Your task to perform on an android device: change the clock display to analog Image 0: 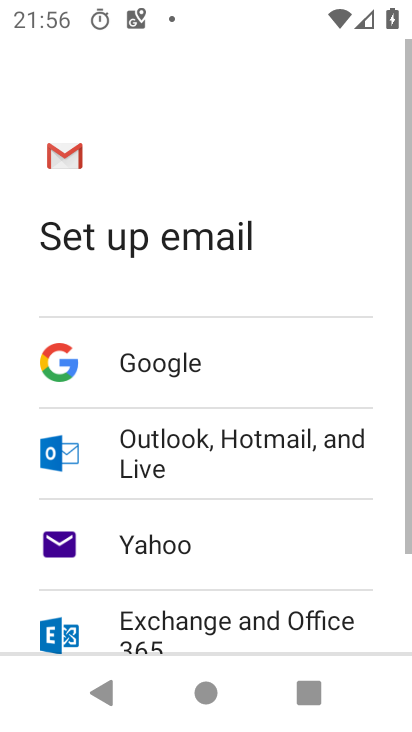
Step 0: press home button
Your task to perform on an android device: change the clock display to analog Image 1: 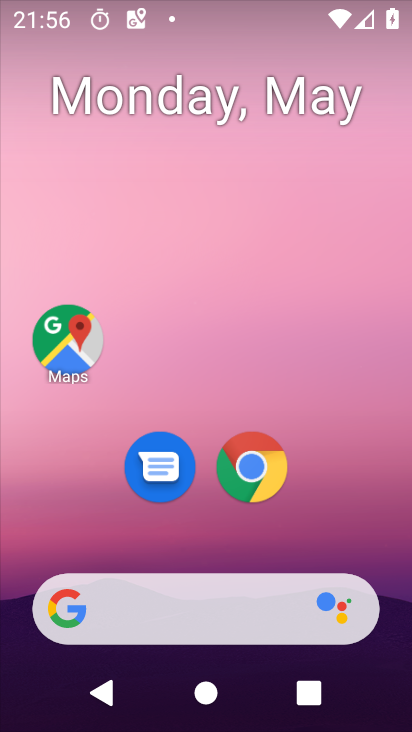
Step 1: drag from (221, 647) to (208, 101)
Your task to perform on an android device: change the clock display to analog Image 2: 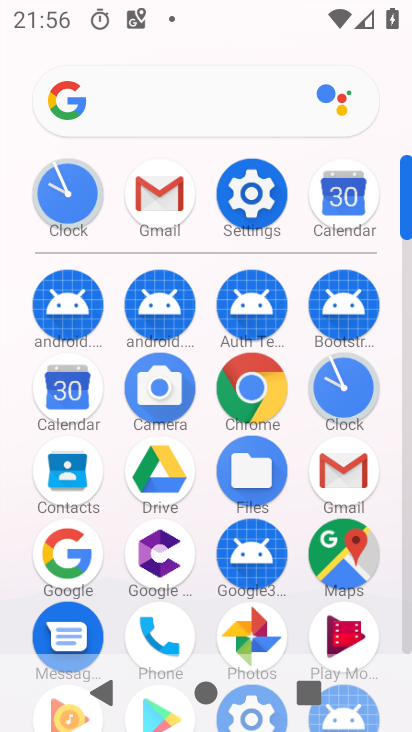
Step 2: click (63, 199)
Your task to perform on an android device: change the clock display to analog Image 3: 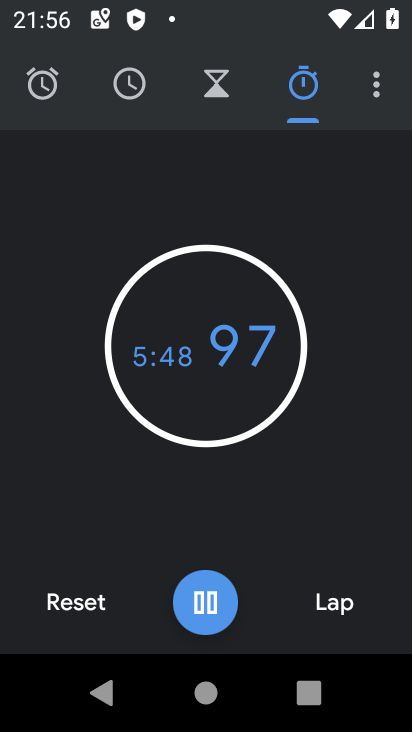
Step 3: click (364, 93)
Your task to perform on an android device: change the clock display to analog Image 4: 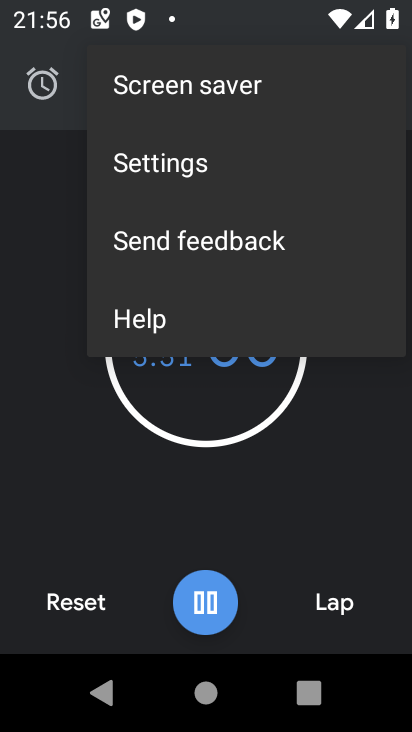
Step 4: click (203, 161)
Your task to perform on an android device: change the clock display to analog Image 5: 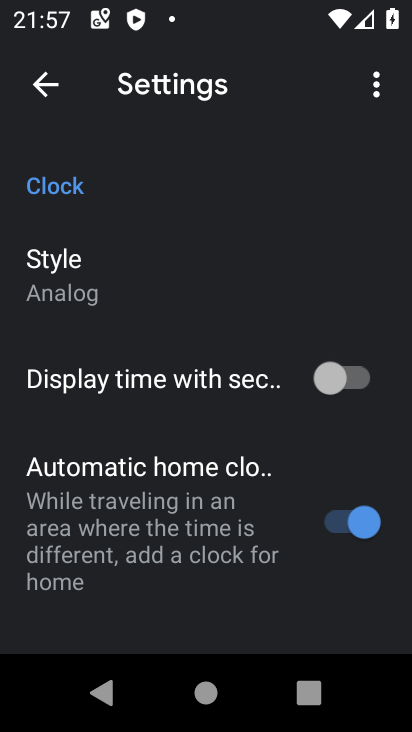
Step 5: click (74, 277)
Your task to perform on an android device: change the clock display to analog Image 6: 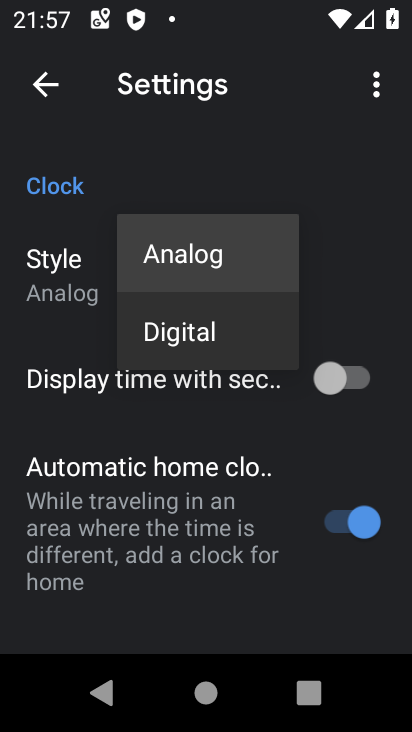
Step 6: click (194, 258)
Your task to perform on an android device: change the clock display to analog Image 7: 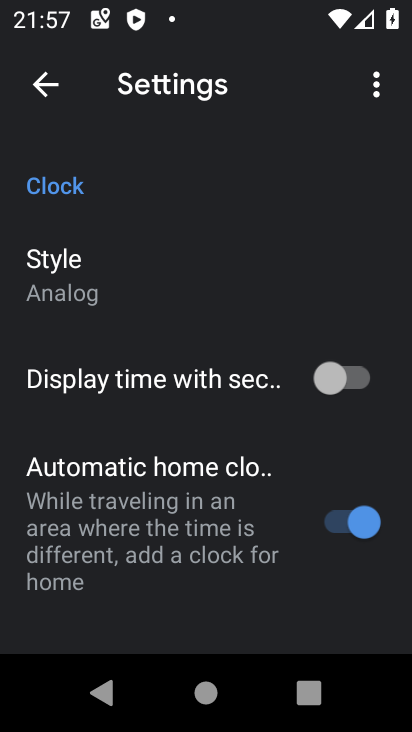
Step 7: task complete